Your task to perform on an android device: Go to Maps Image 0: 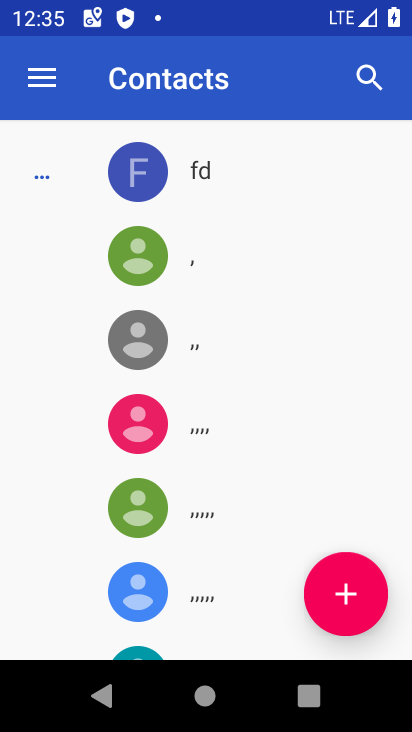
Step 0: press home button
Your task to perform on an android device: Go to Maps Image 1: 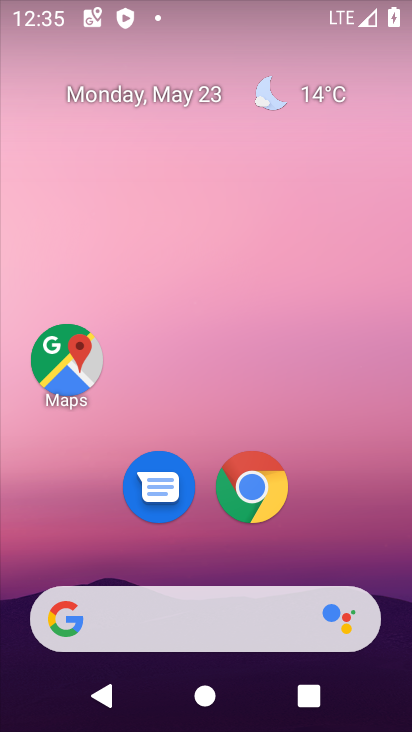
Step 1: click (72, 364)
Your task to perform on an android device: Go to Maps Image 2: 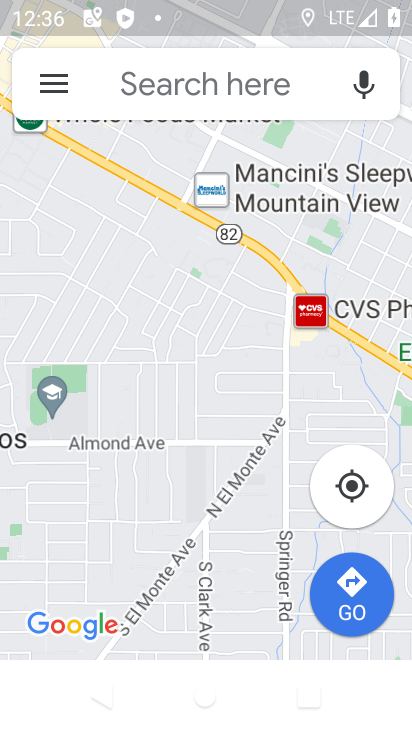
Step 2: click (52, 78)
Your task to perform on an android device: Go to Maps Image 3: 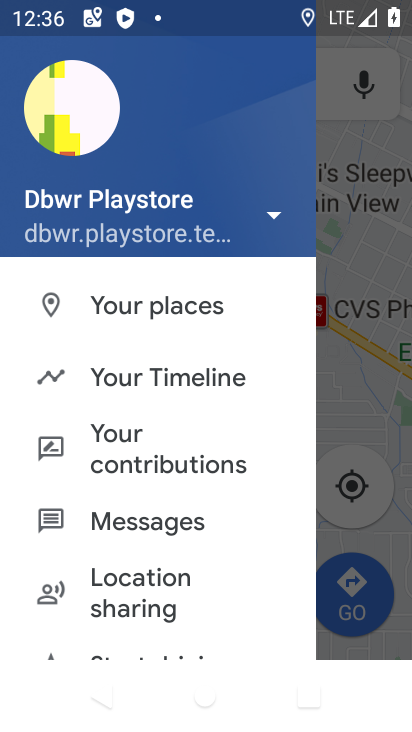
Step 3: click (360, 323)
Your task to perform on an android device: Go to Maps Image 4: 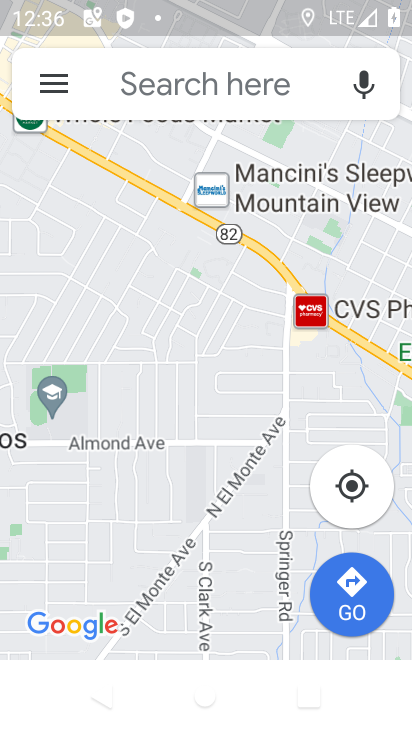
Step 4: task complete